Your task to perform on an android device: snooze an email in the gmail app Image 0: 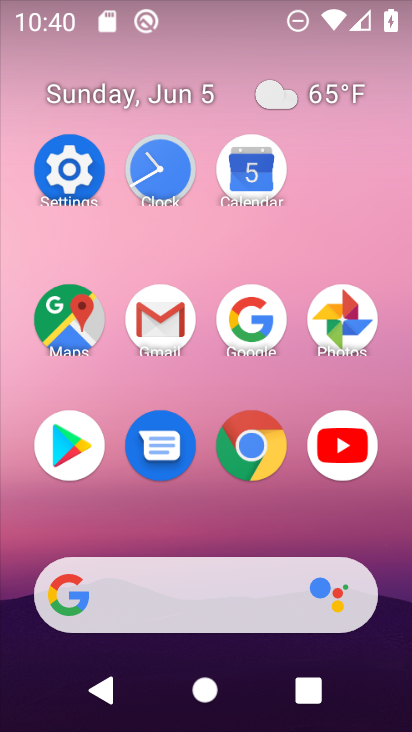
Step 0: click (175, 324)
Your task to perform on an android device: snooze an email in the gmail app Image 1: 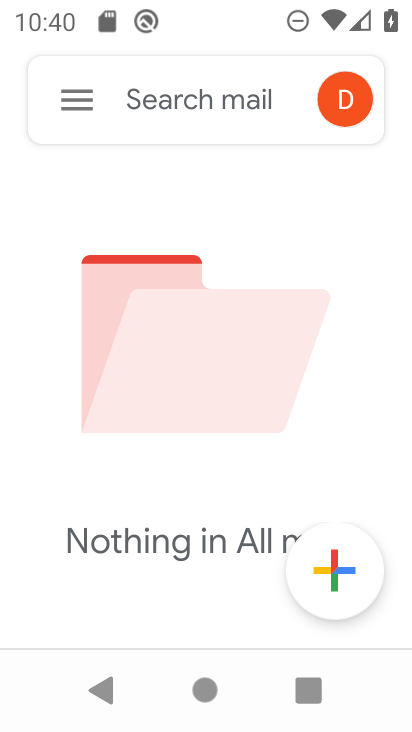
Step 1: click (62, 91)
Your task to perform on an android device: snooze an email in the gmail app Image 2: 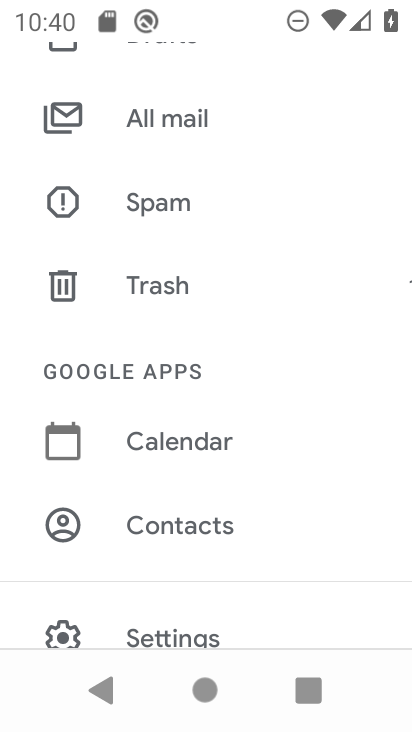
Step 2: click (217, 125)
Your task to perform on an android device: snooze an email in the gmail app Image 3: 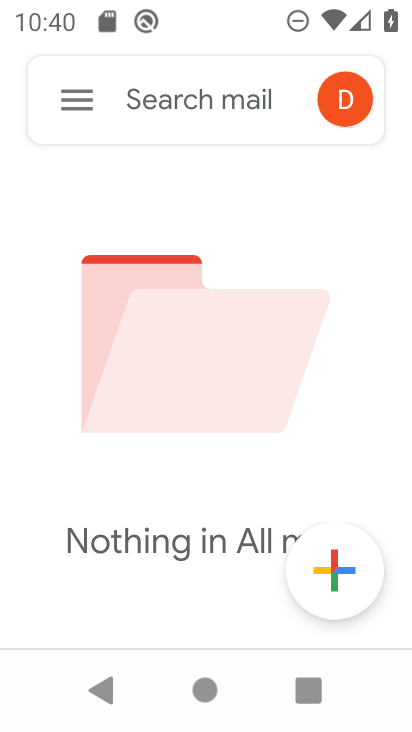
Step 3: task complete